Your task to perform on an android device: set default search engine in the chrome app Image 0: 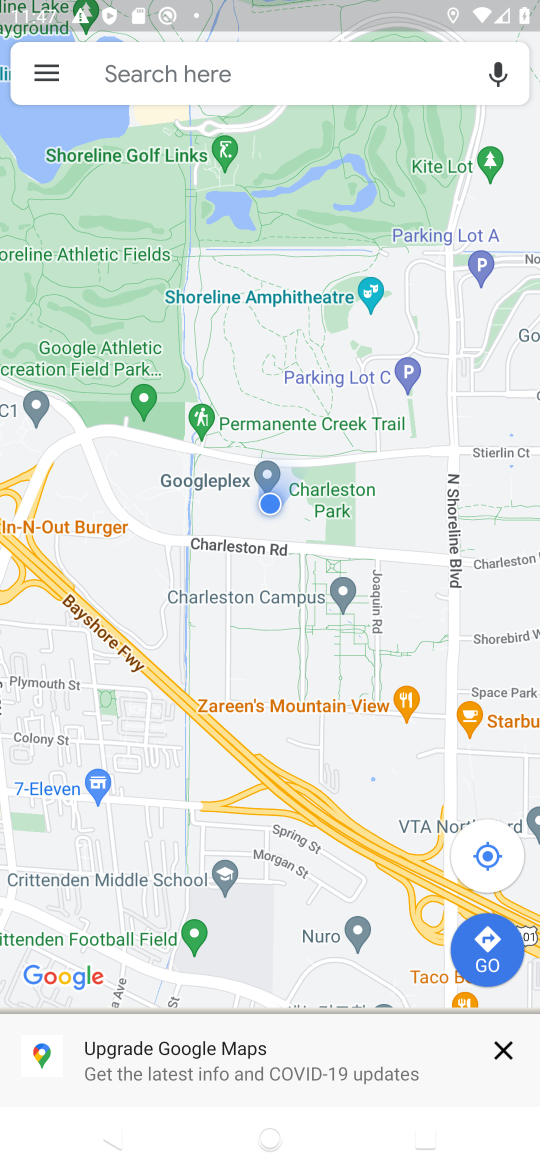
Step 0: press home button
Your task to perform on an android device: set default search engine in the chrome app Image 1: 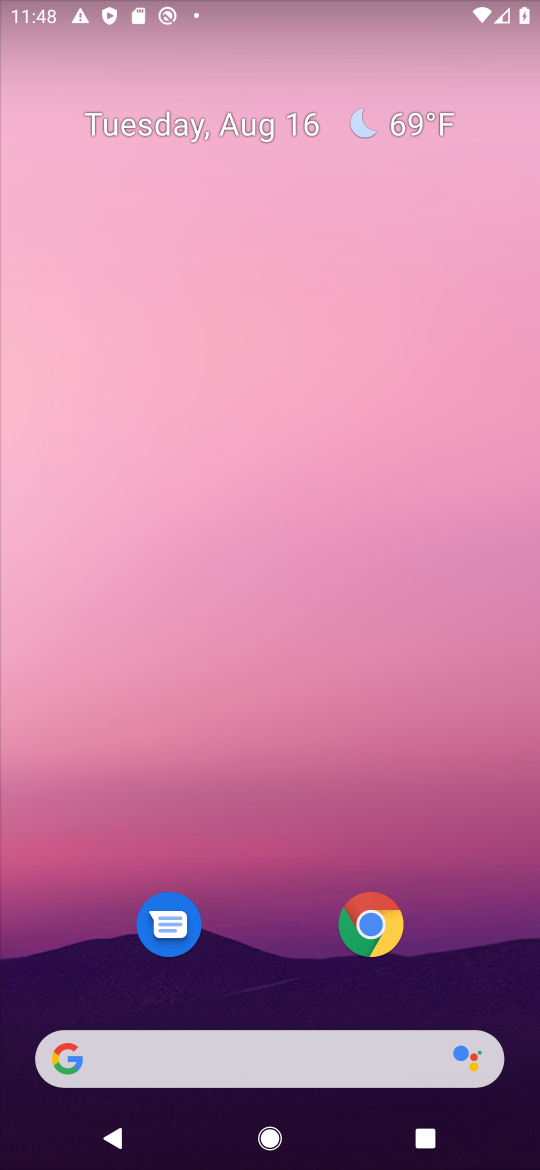
Step 1: click (369, 939)
Your task to perform on an android device: set default search engine in the chrome app Image 2: 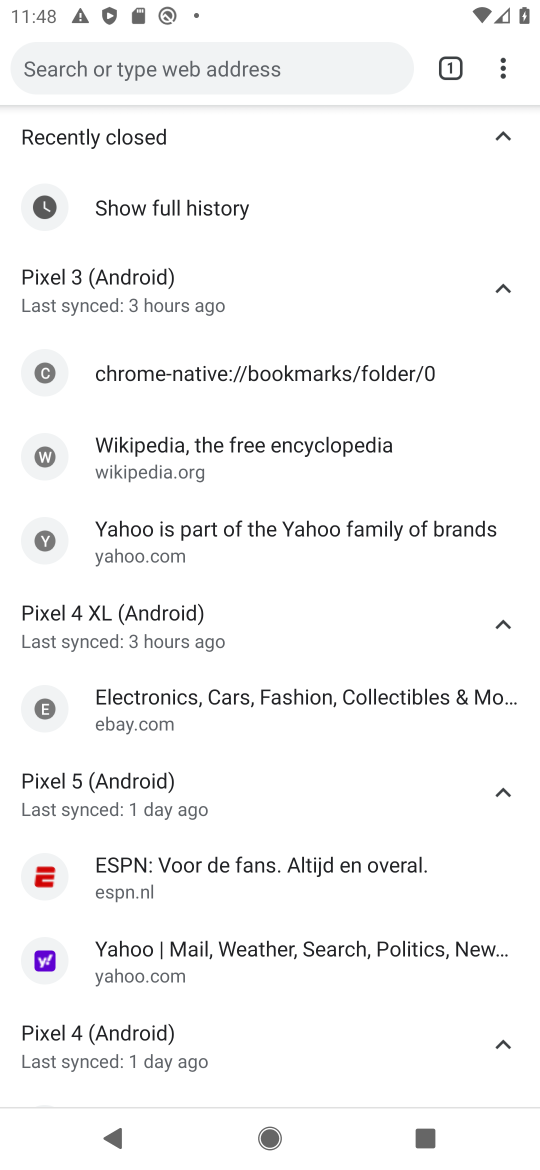
Step 2: click (513, 66)
Your task to perform on an android device: set default search engine in the chrome app Image 3: 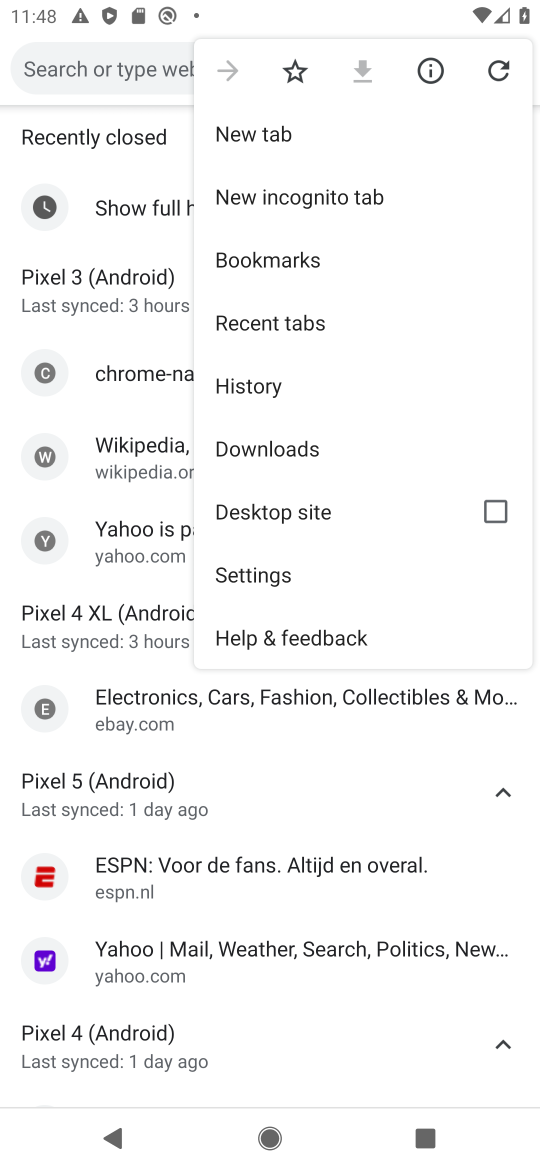
Step 3: click (276, 579)
Your task to perform on an android device: set default search engine in the chrome app Image 4: 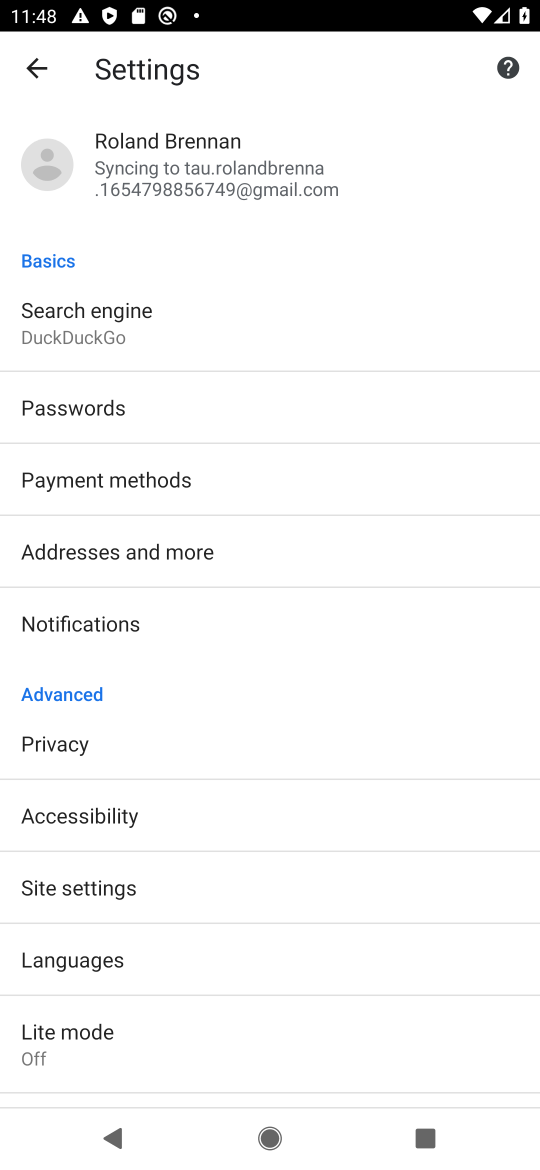
Step 4: click (108, 347)
Your task to perform on an android device: set default search engine in the chrome app Image 5: 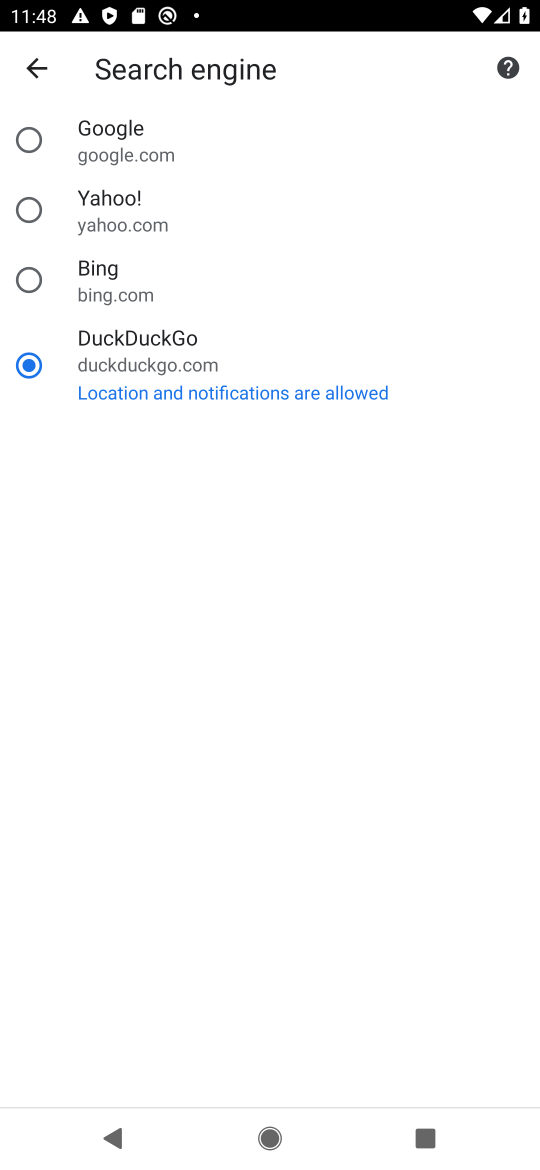
Step 5: click (149, 265)
Your task to perform on an android device: set default search engine in the chrome app Image 6: 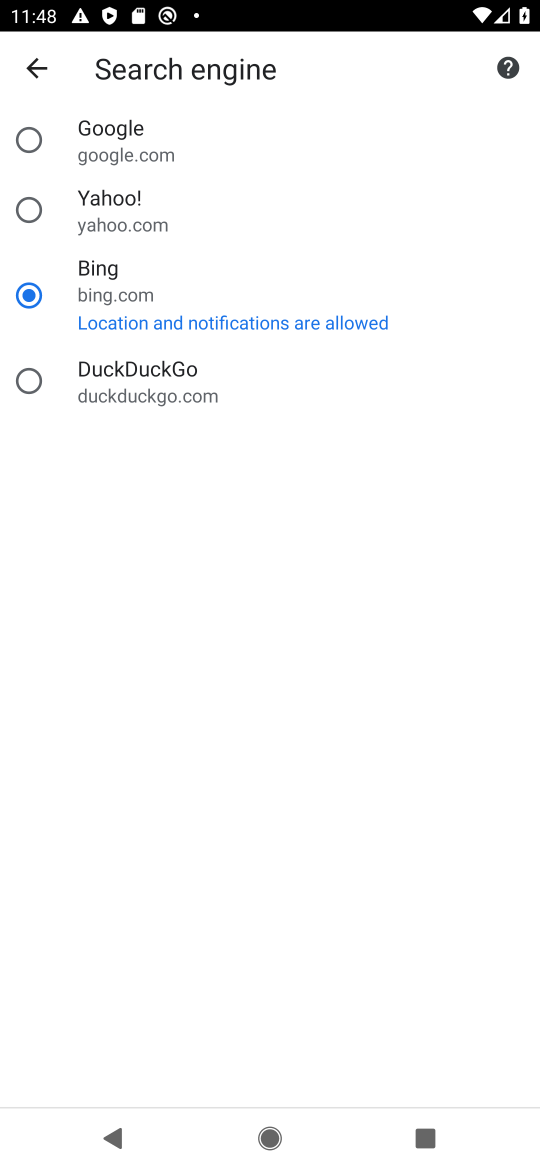
Step 6: task complete